Your task to perform on an android device: What's the weather? Image 0: 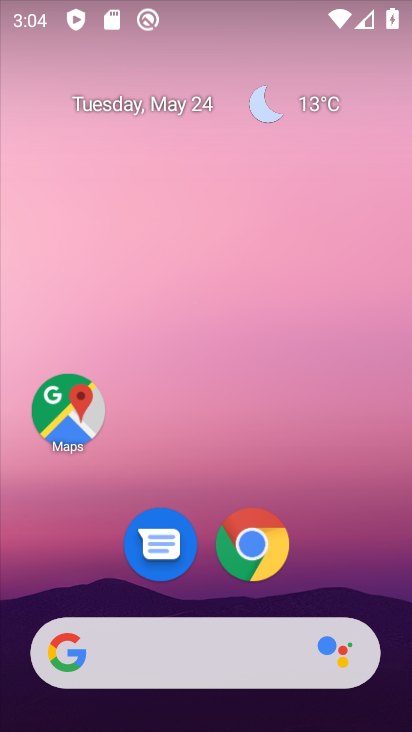
Step 0: click (308, 119)
Your task to perform on an android device: What's the weather? Image 1: 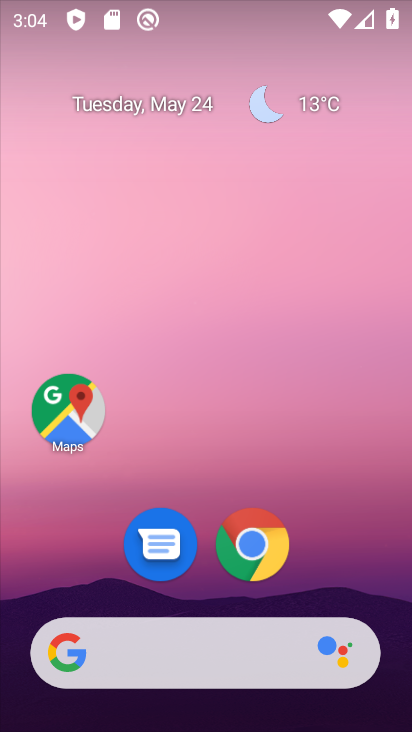
Step 1: click (311, 101)
Your task to perform on an android device: What's the weather? Image 2: 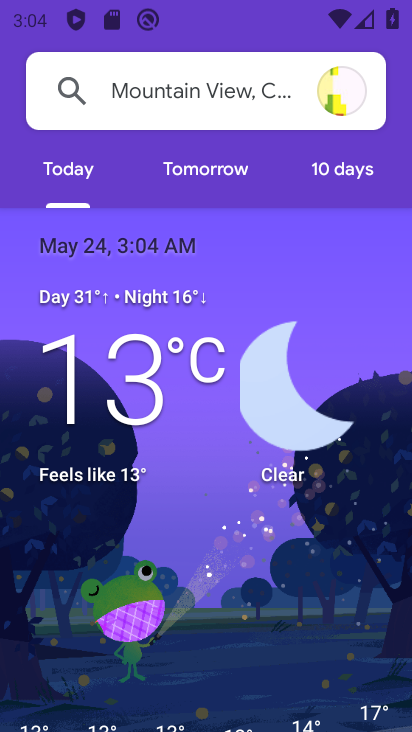
Step 2: task complete